Your task to perform on an android device: Is it going to rain tomorrow? Image 0: 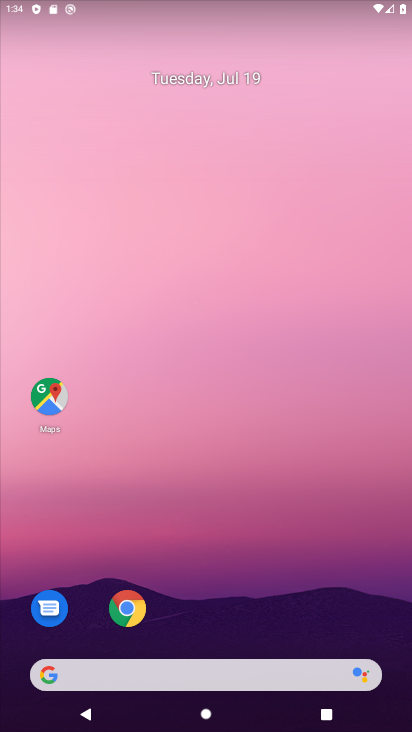
Step 0: click (133, 622)
Your task to perform on an android device: Is it going to rain tomorrow? Image 1: 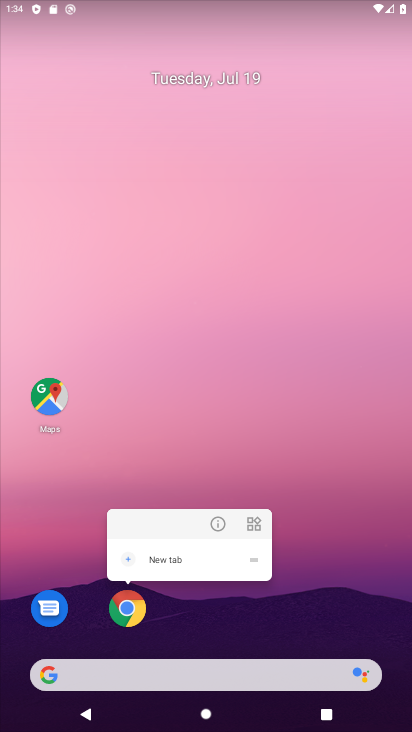
Step 1: click (132, 621)
Your task to perform on an android device: Is it going to rain tomorrow? Image 2: 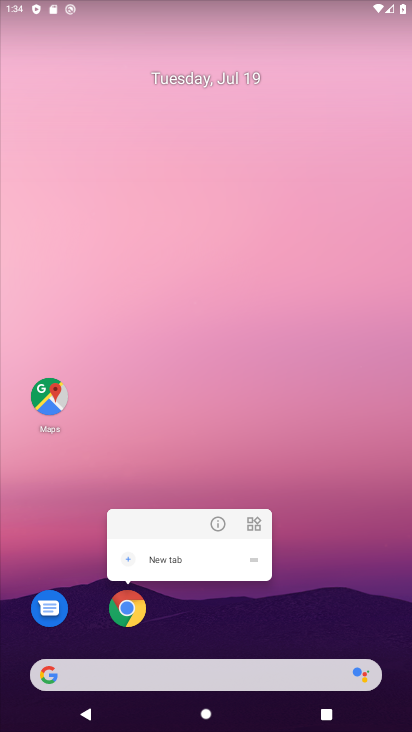
Step 2: click (132, 619)
Your task to perform on an android device: Is it going to rain tomorrow? Image 3: 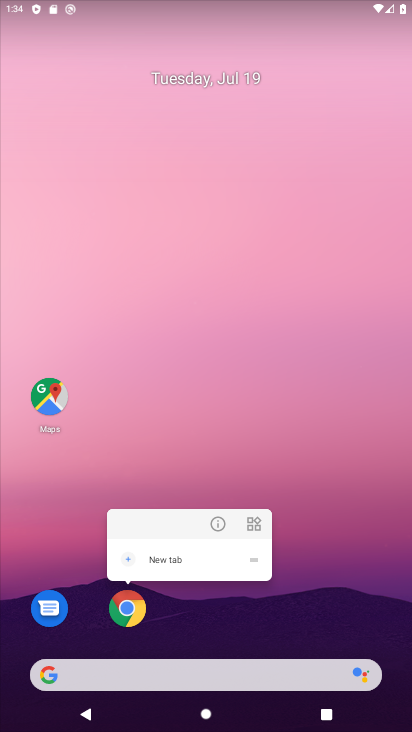
Step 3: click (145, 618)
Your task to perform on an android device: Is it going to rain tomorrow? Image 4: 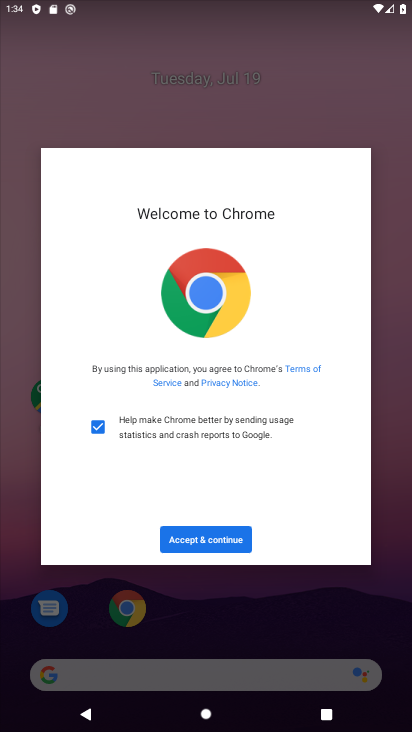
Step 4: click (222, 542)
Your task to perform on an android device: Is it going to rain tomorrow? Image 5: 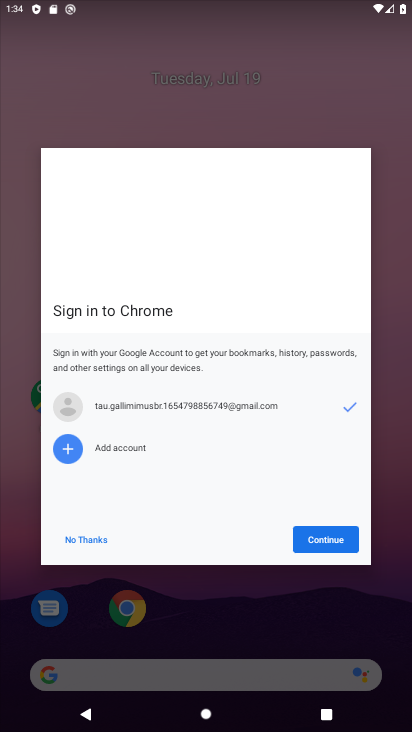
Step 5: click (313, 543)
Your task to perform on an android device: Is it going to rain tomorrow? Image 6: 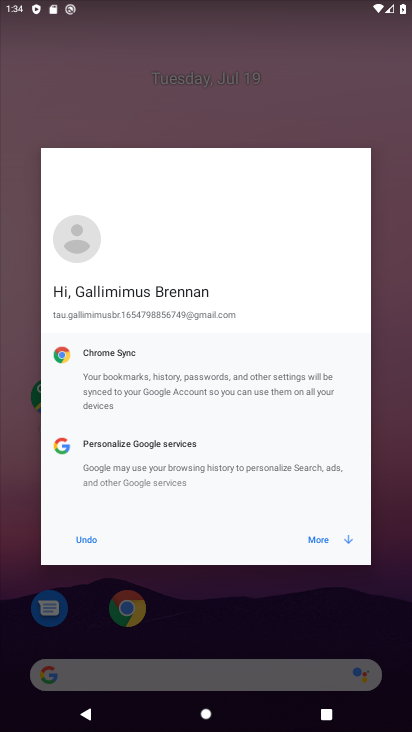
Step 6: click (313, 543)
Your task to perform on an android device: Is it going to rain tomorrow? Image 7: 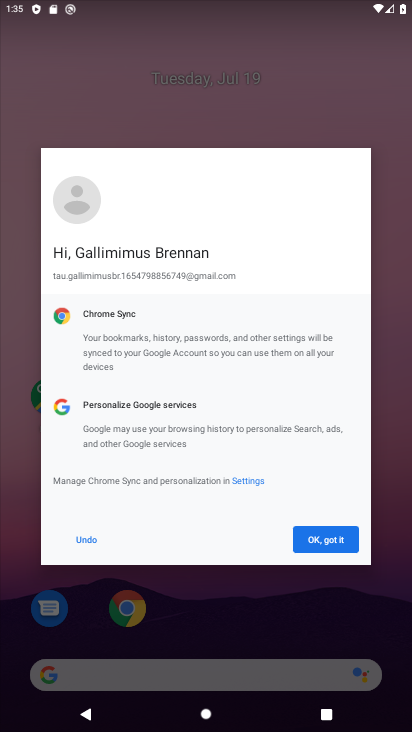
Step 7: click (313, 543)
Your task to perform on an android device: Is it going to rain tomorrow? Image 8: 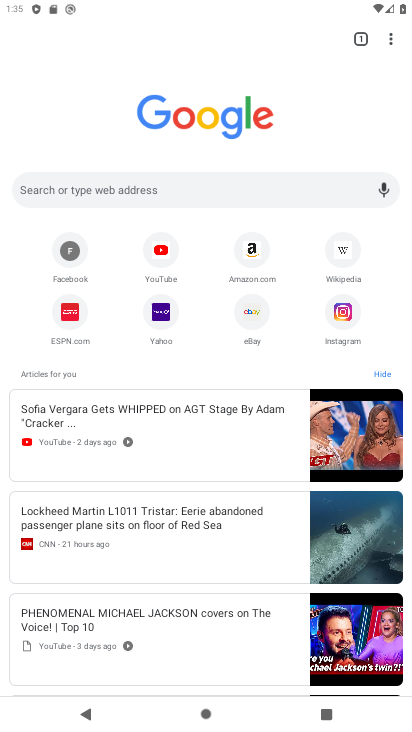
Step 8: click (290, 197)
Your task to perform on an android device: Is it going to rain tomorrow? Image 9: 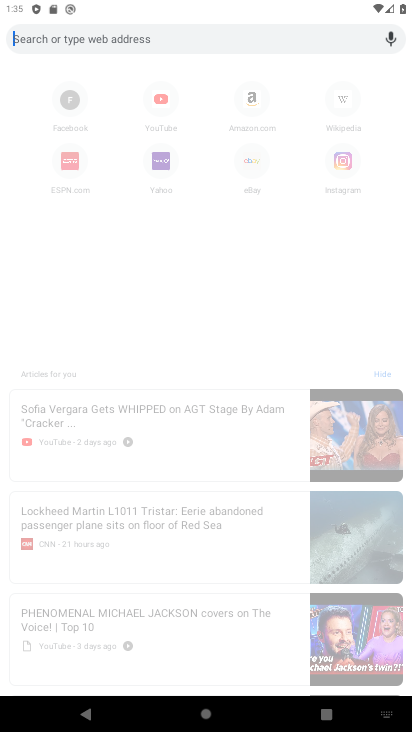
Step 9: type "Is it going to rain tomorrow?"
Your task to perform on an android device: Is it going to rain tomorrow? Image 10: 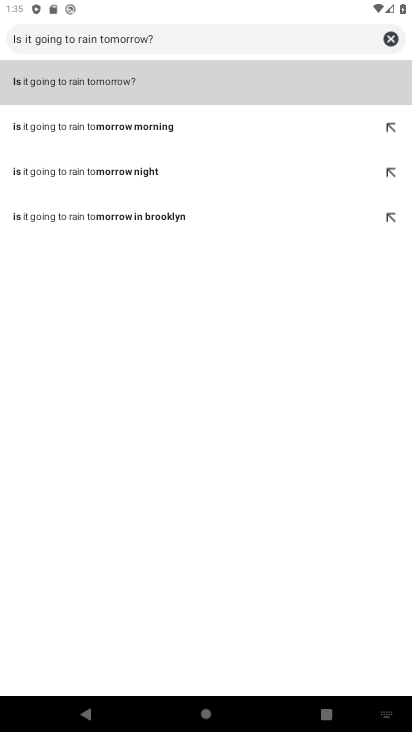
Step 10: click (221, 89)
Your task to perform on an android device: Is it going to rain tomorrow? Image 11: 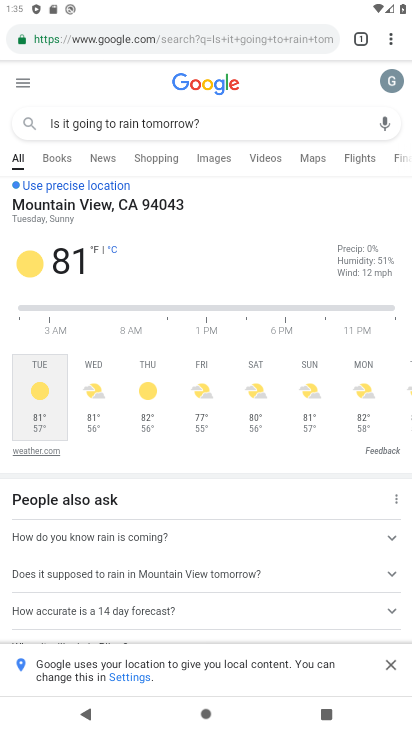
Step 11: task complete